Your task to perform on an android device: change the clock display to digital Image 0: 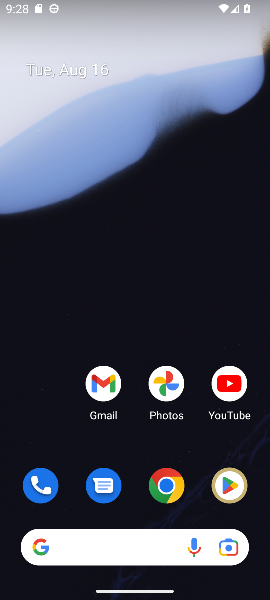
Step 0: drag from (145, 457) to (124, 182)
Your task to perform on an android device: change the clock display to digital Image 1: 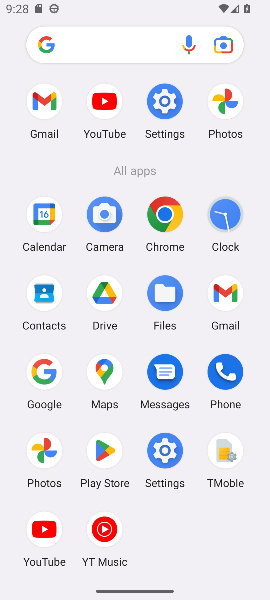
Step 1: click (231, 219)
Your task to perform on an android device: change the clock display to digital Image 2: 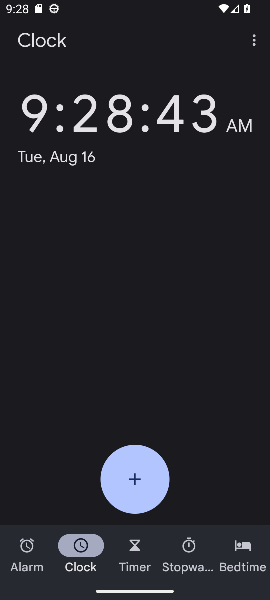
Step 2: click (259, 32)
Your task to perform on an android device: change the clock display to digital Image 3: 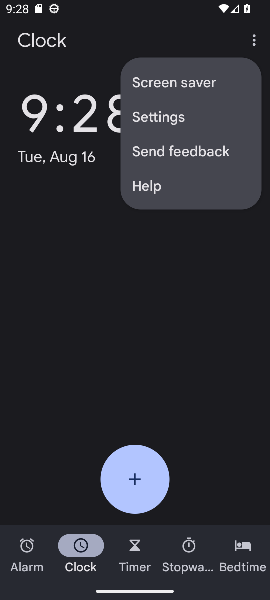
Step 3: click (170, 115)
Your task to perform on an android device: change the clock display to digital Image 4: 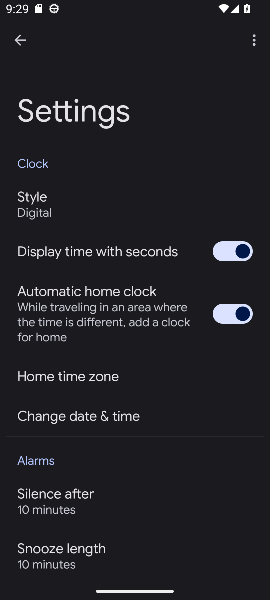
Step 4: task complete